Your task to perform on an android device: Open settings Image 0: 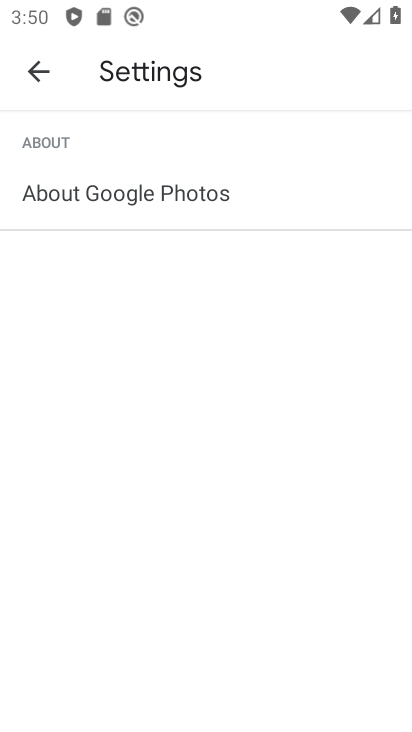
Step 0: press home button
Your task to perform on an android device: Open settings Image 1: 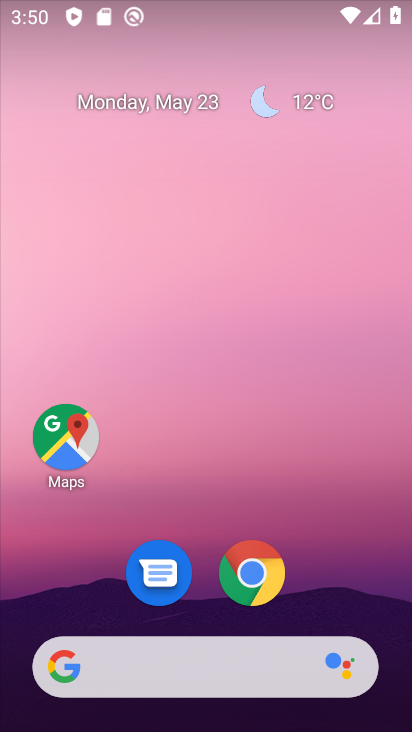
Step 1: drag from (79, 409) to (184, 196)
Your task to perform on an android device: Open settings Image 2: 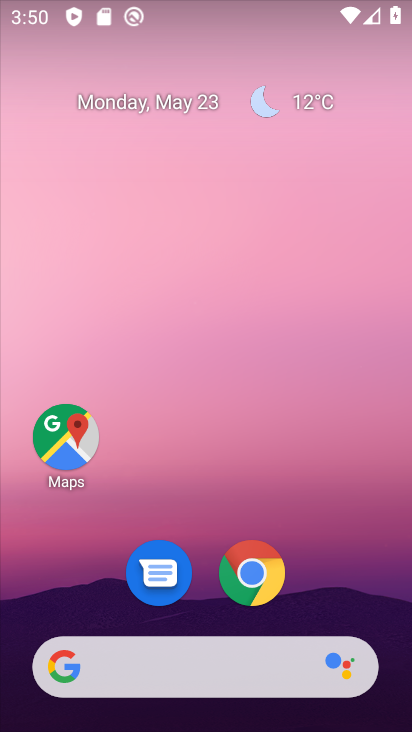
Step 2: drag from (44, 390) to (146, 91)
Your task to perform on an android device: Open settings Image 3: 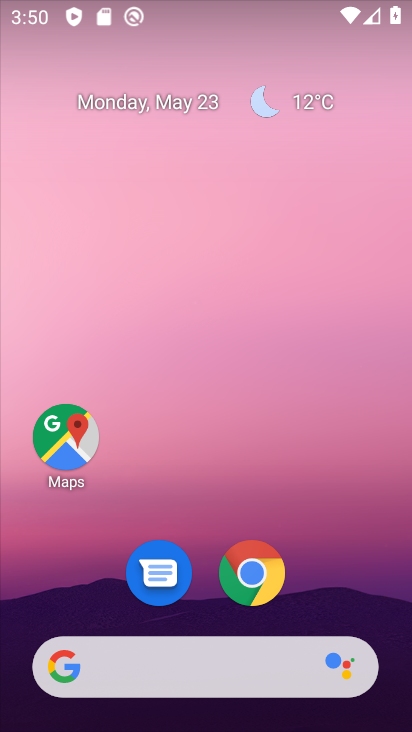
Step 3: drag from (72, 446) to (219, 79)
Your task to perform on an android device: Open settings Image 4: 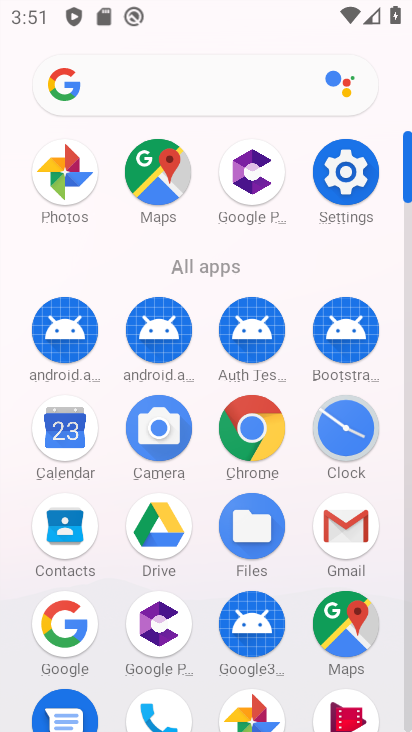
Step 4: click (337, 167)
Your task to perform on an android device: Open settings Image 5: 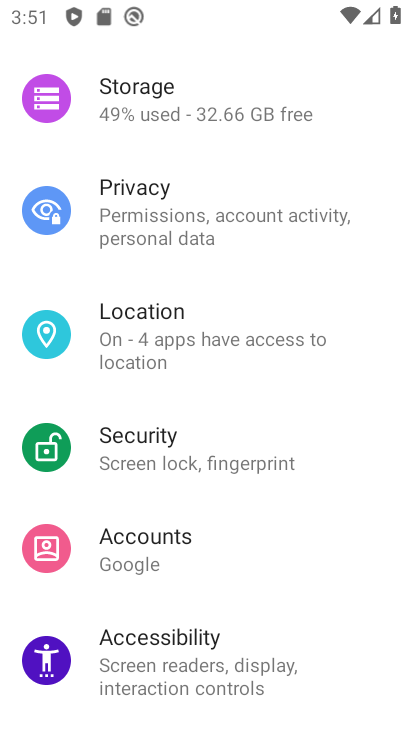
Step 5: task complete